Your task to perform on an android device: toggle sleep mode Image 0: 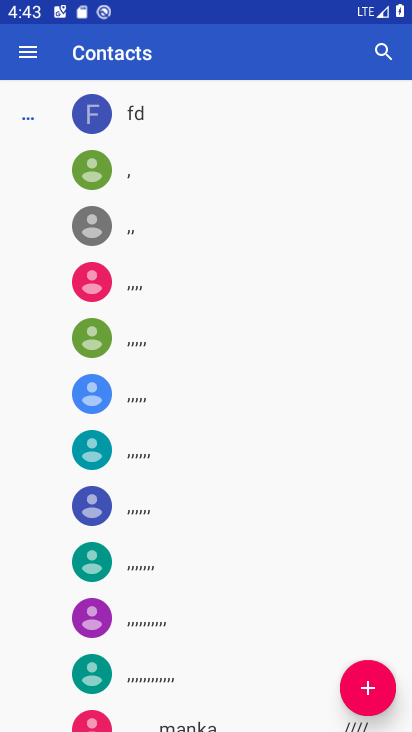
Step 0: press home button
Your task to perform on an android device: toggle sleep mode Image 1: 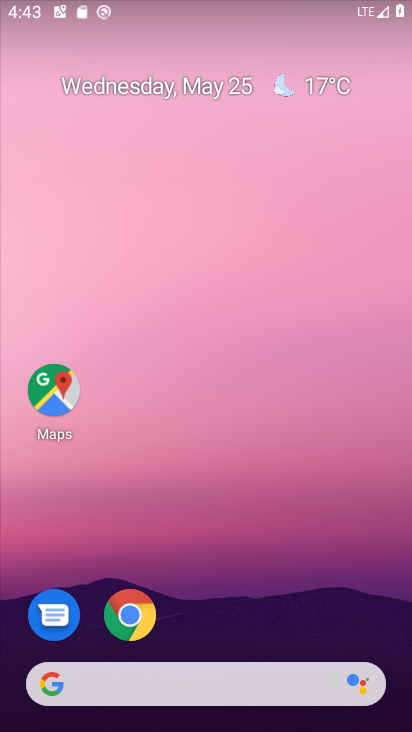
Step 1: drag from (265, 12) to (195, 15)
Your task to perform on an android device: toggle sleep mode Image 2: 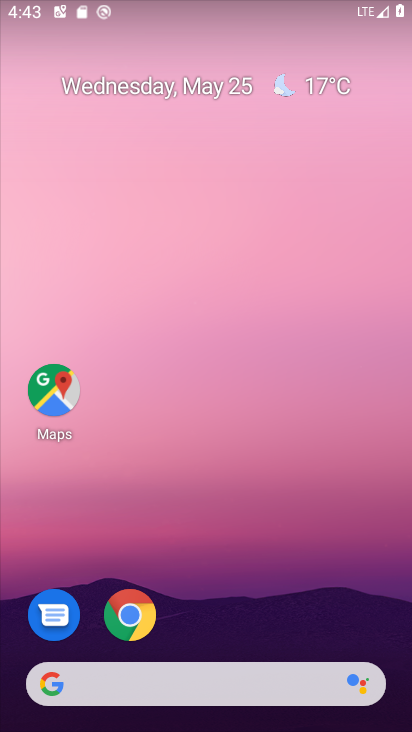
Step 2: drag from (266, 434) to (210, 16)
Your task to perform on an android device: toggle sleep mode Image 3: 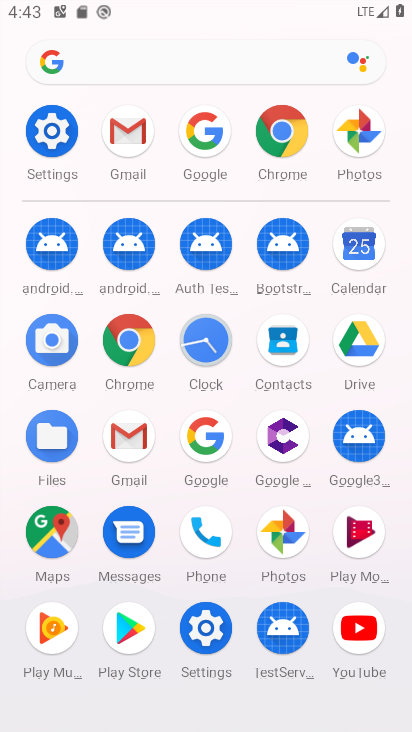
Step 3: click (39, 133)
Your task to perform on an android device: toggle sleep mode Image 4: 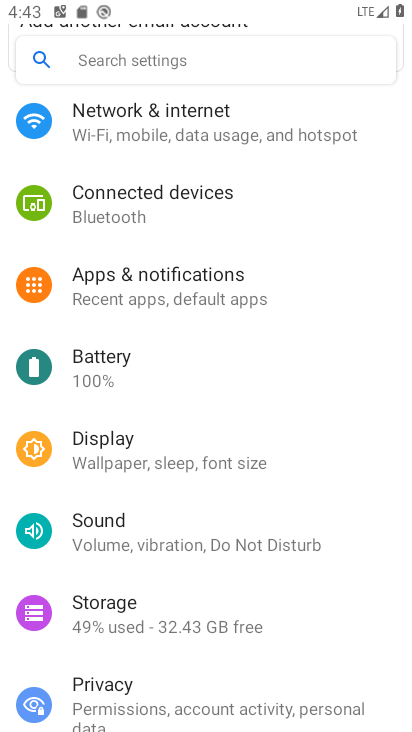
Step 4: click (191, 460)
Your task to perform on an android device: toggle sleep mode Image 5: 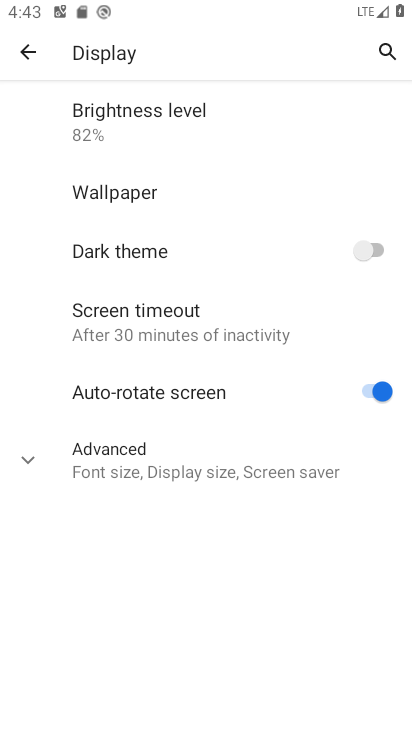
Step 5: task complete